Your task to perform on an android device: Do I have any events today? Image 0: 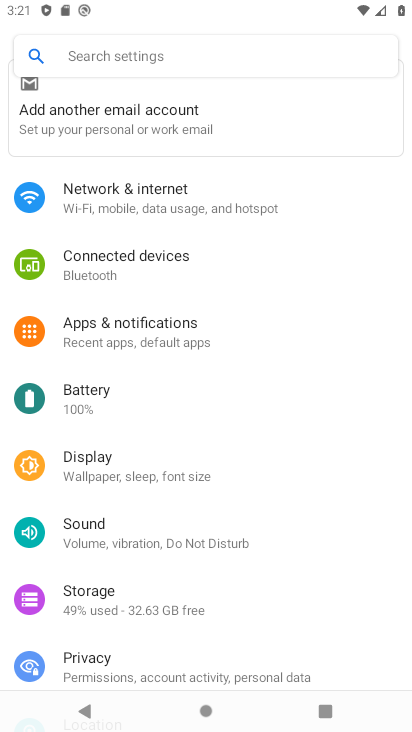
Step 0: press home button
Your task to perform on an android device: Do I have any events today? Image 1: 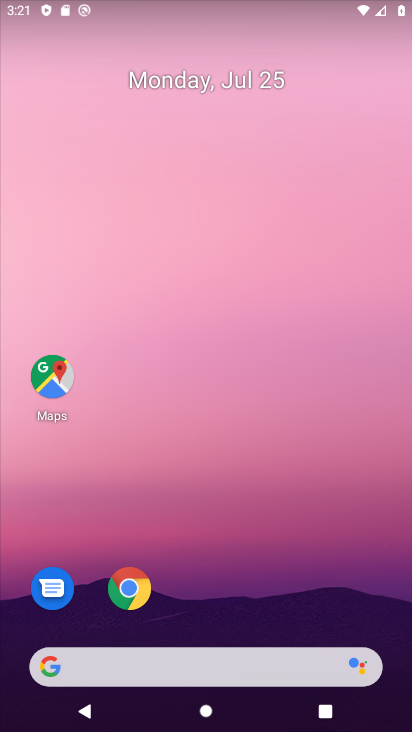
Step 1: drag from (235, 716) to (248, 17)
Your task to perform on an android device: Do I have any events today? Image 2: 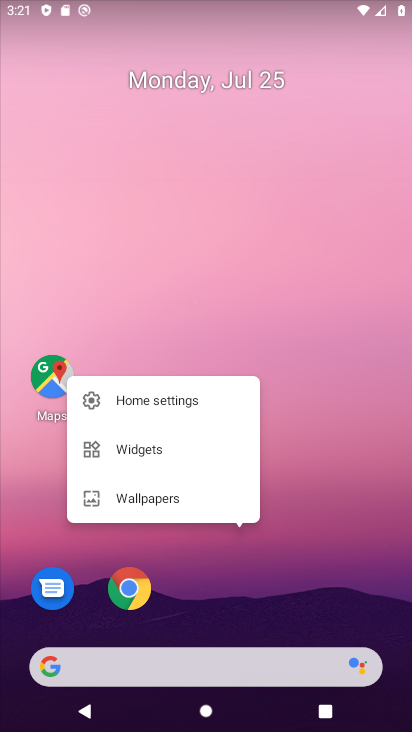
Step 2: click (262, 273)
Your task to perform on an android device: Do I have any events today? Image 3: 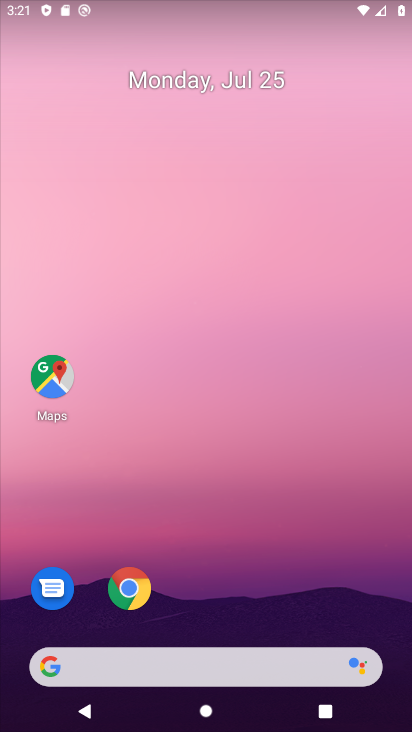
Step 3: drag from (235, 719) to (218, 97)
Your task to perform on an android device: Do I have any events today? Image 4: 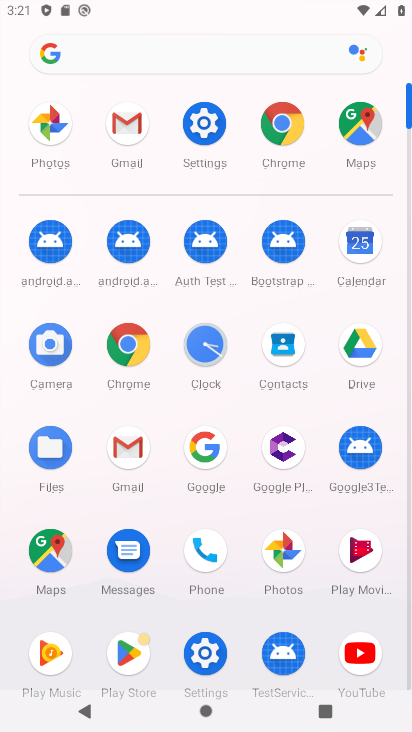
Step 4: click (365, 246)
Your task to perform on an android device: Do I have any events today? Image 5: 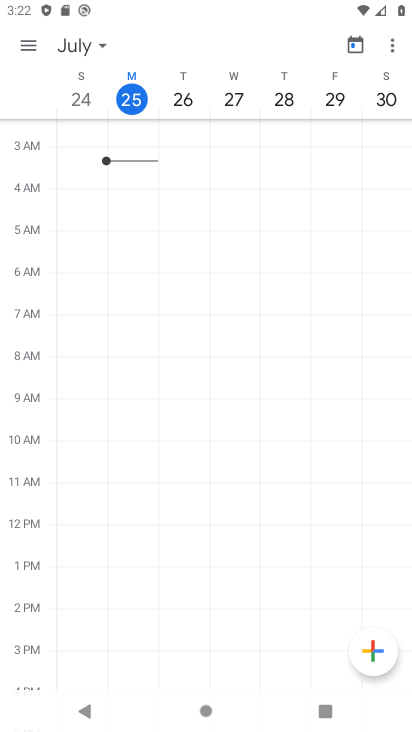
Step 5: click (137, 90)
Your task to perform on an android device: Do I have any events today? Image 6: 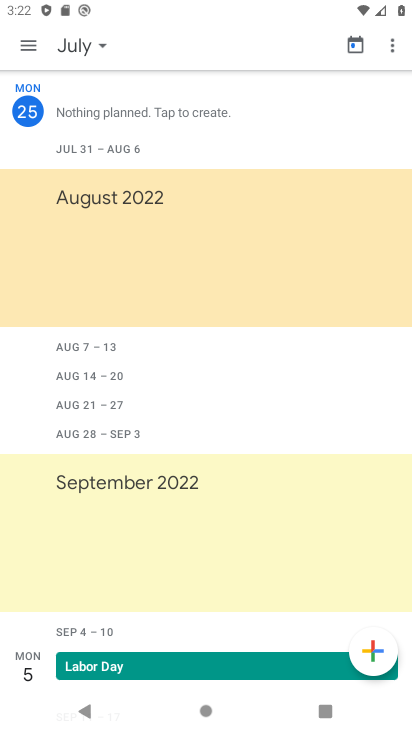
Step 6: task complete